Your task to perform on an android device: turn notification dots on Image 0: 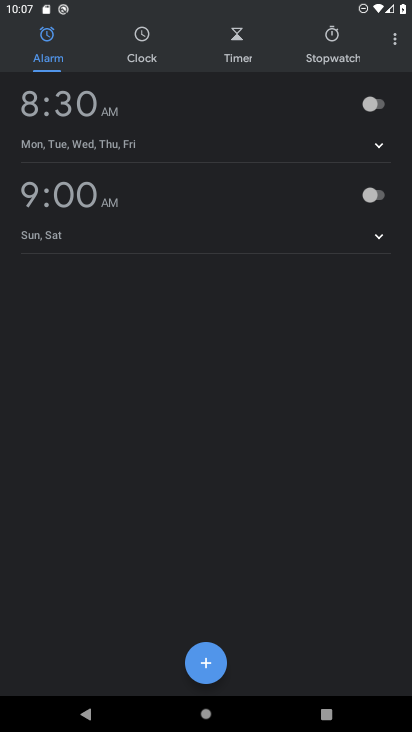
Step 0: press home button
Your task to perform on an android device: turn notification dots on Image 1: 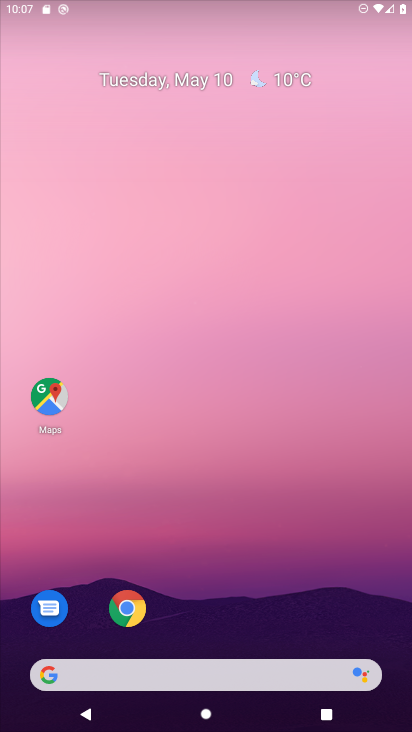
Step 1: drag from (360, 626) to (303, 88)
Your task to perform on an android device: turn notification dots on Image 2: 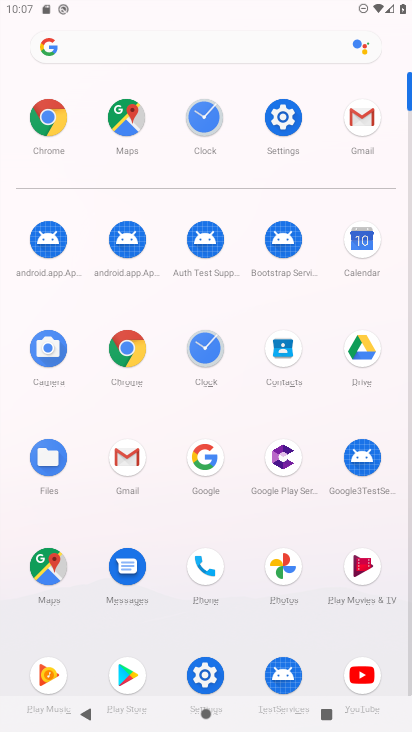
Step 2: click (284, 112)
Your task to perform on an android device: turn notification dots on Image 3: 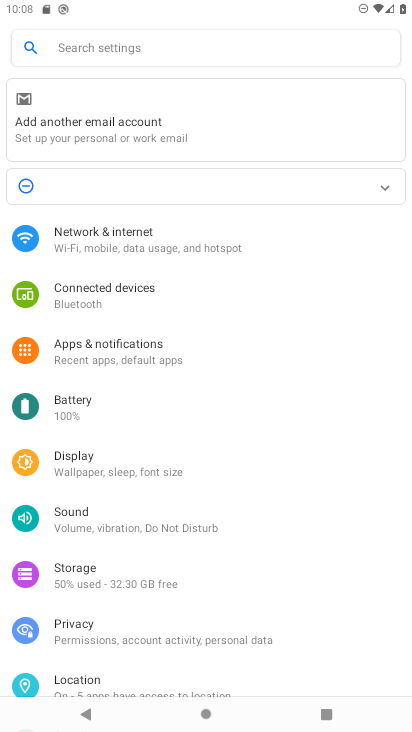
Step 3: click (136, 364)
Your task to perform on an android device: turn notification dots on Image 4: 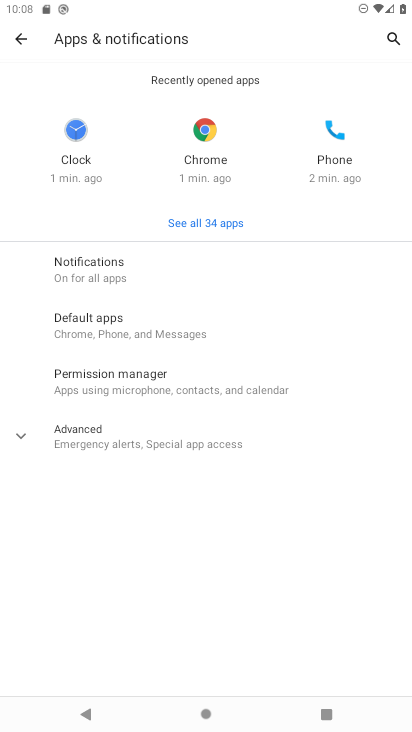
Step 4: click (117, 273)
Your task to perform on an android device: turn notification dots on Image 5: 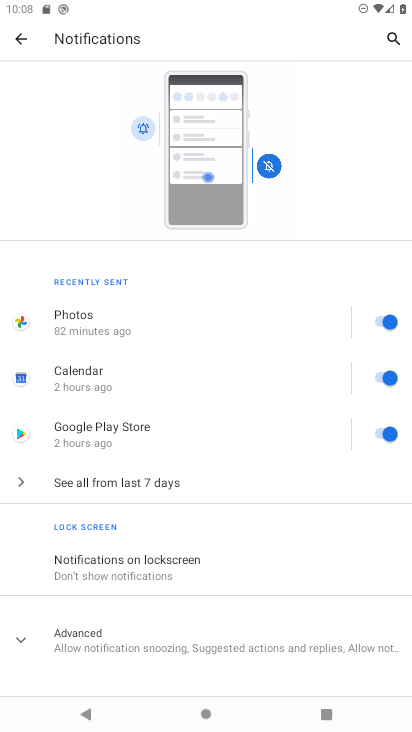
Step 5: click (131, 645)
Your task to perform on an android device: turn notification dots on Image 6: 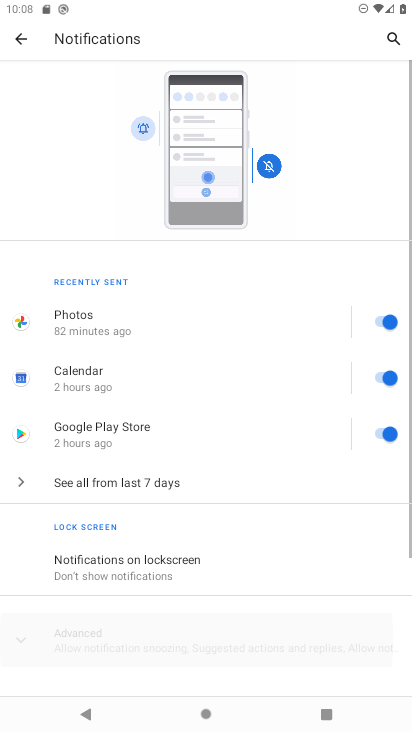
Step 6: drag from (131, 645) to (193, 226)
Your task to perform on an android device: turn notification dots on Image 7: 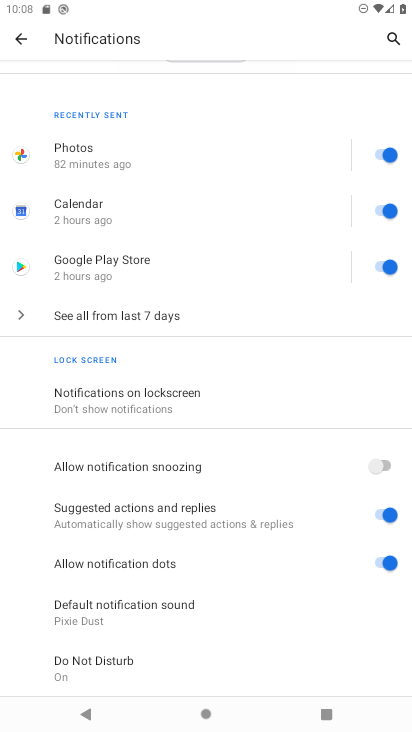
Step 7: click (273, 561)
Your task to perform on an android device: turn notification dots on Image 8: 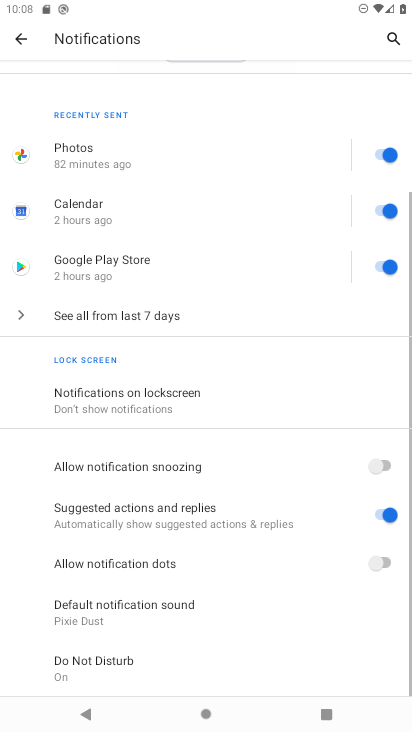
Step 8: click (273, 561)
Your task to perform on an android device: turn notification dots on Image 9: 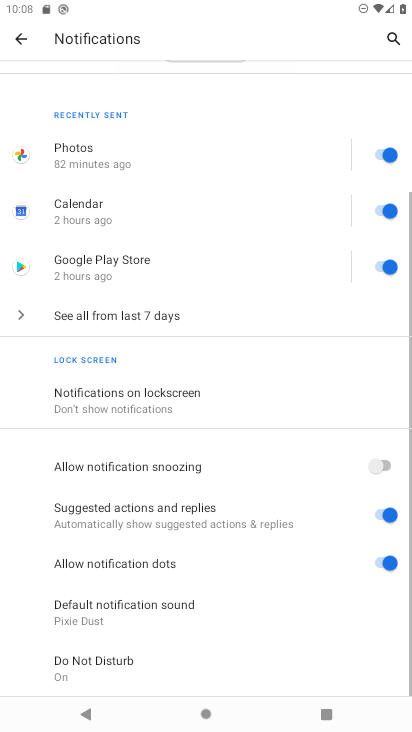
Step 9: task complete